Your task to perform on an android device: open app "Truecaller" (install if not already installed), go to login, and select forgot password Image 0: 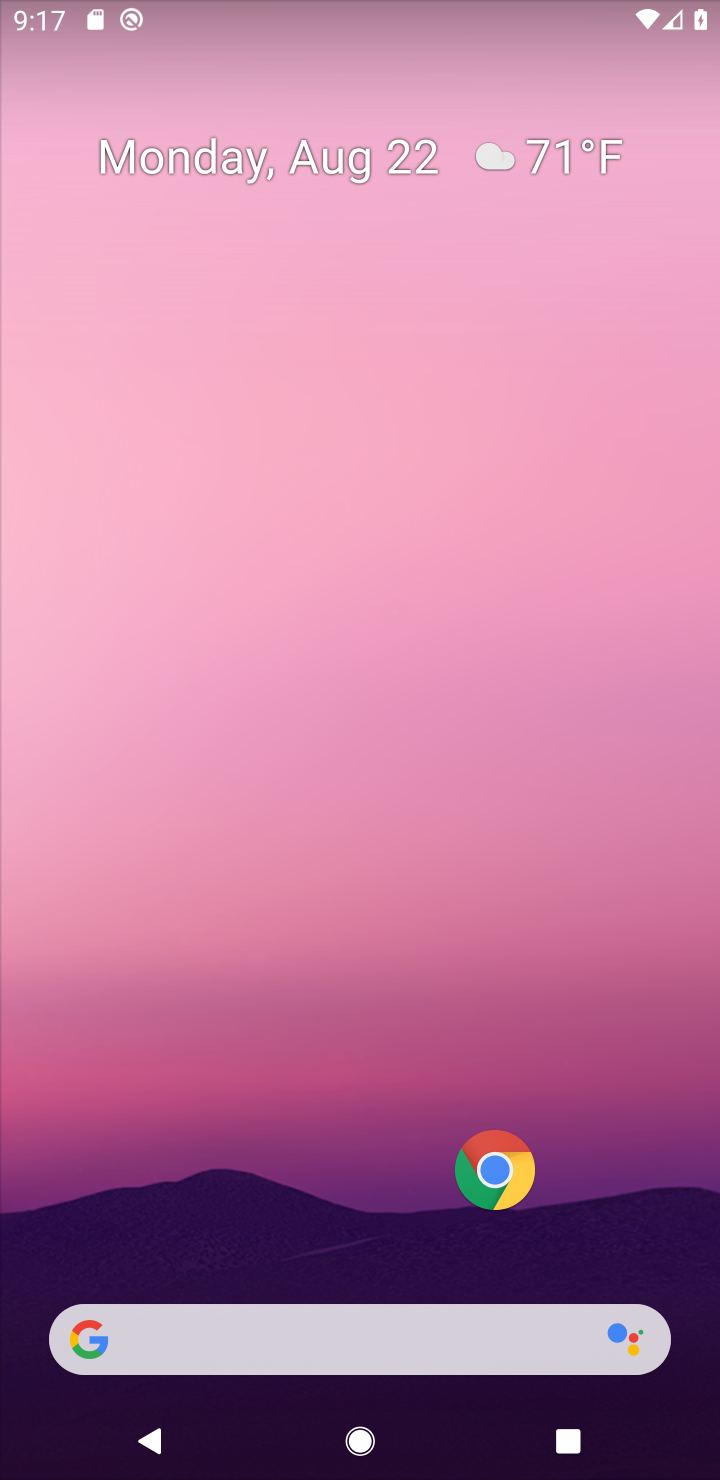
Step 0: drag from (268, 1306) to (339, 98)
Your task to perform on an android device: open app "Truecaller" (install if not already installed), go to login, and select forgot password Image 1: 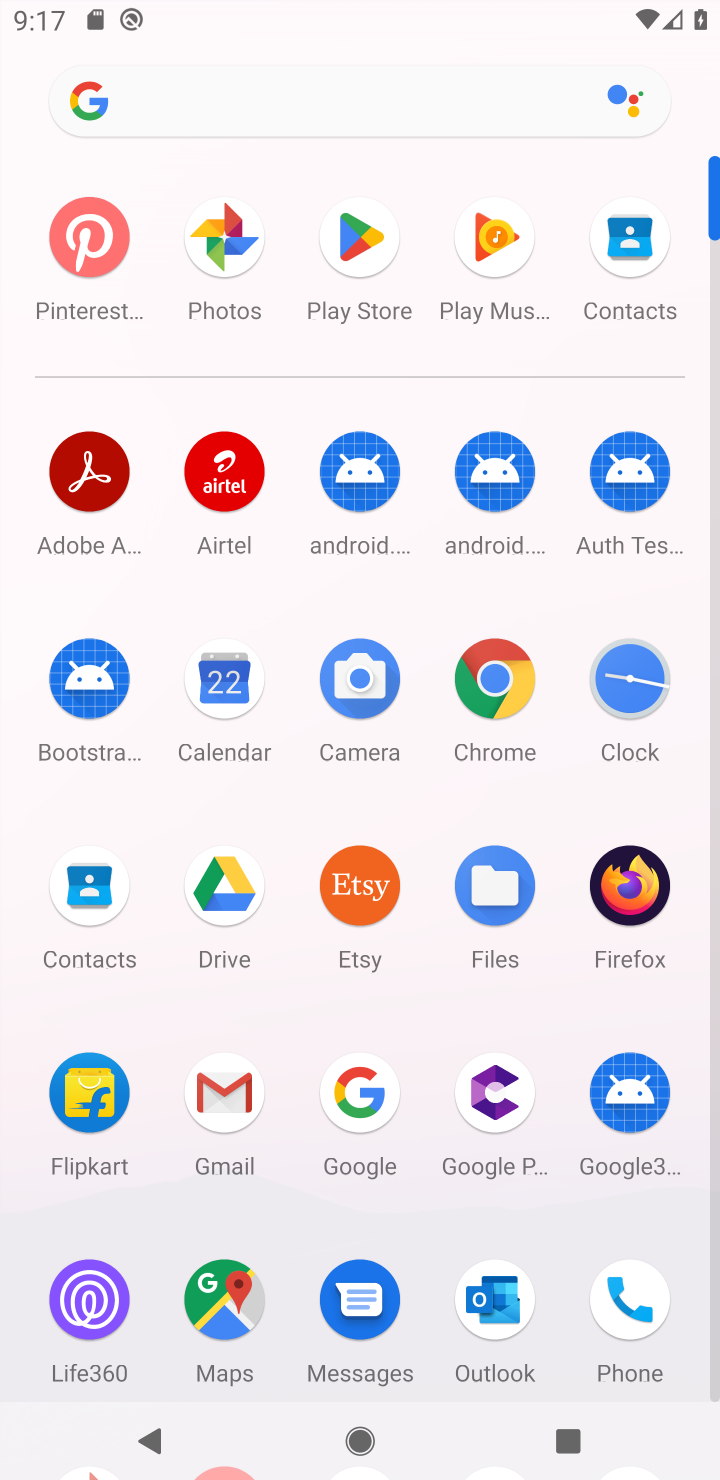
Step 1: click (363, 236)
Your task to perform on an android device: open app "Truecaller" (install if not already installed), go to login, and select forgot password Image 2: 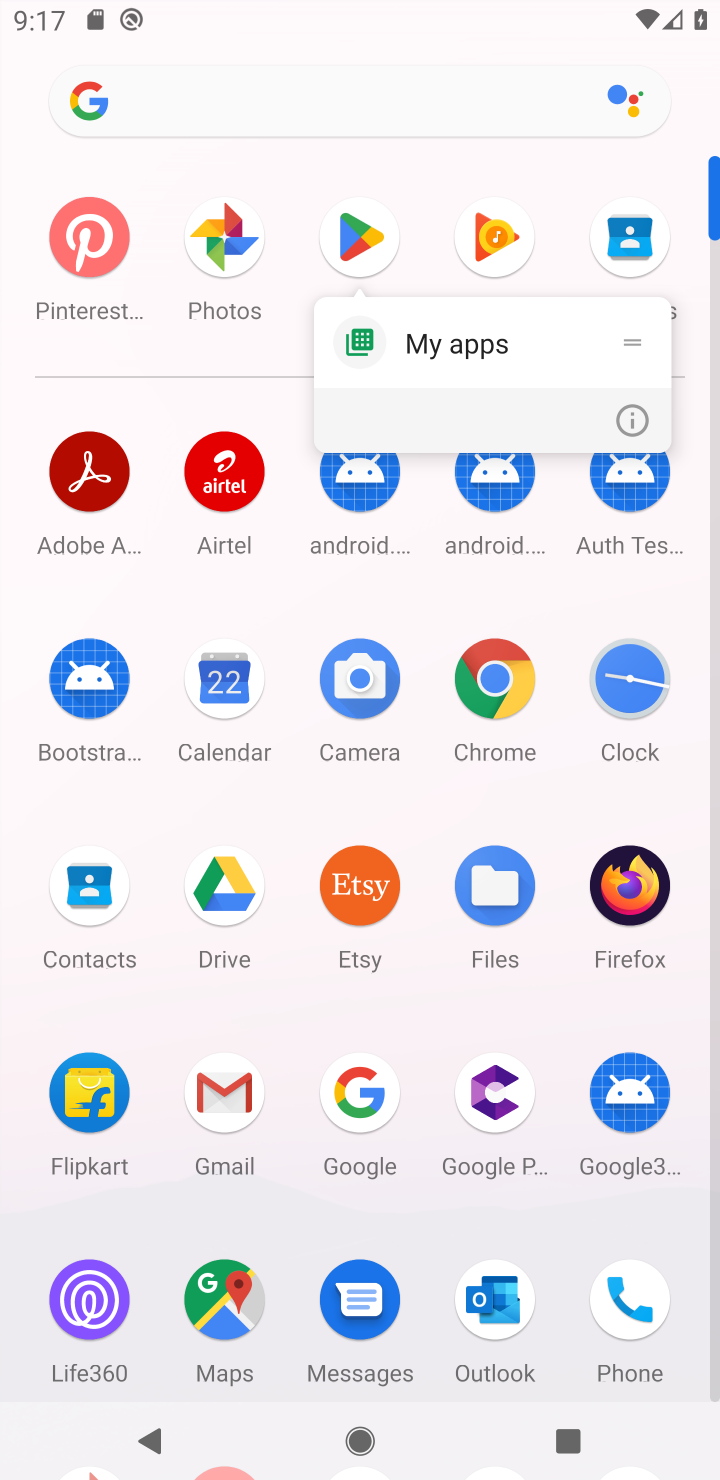
Step 2: click (349, 232)
Your task to perform on an android device: open app "Truecaller" (install if not already installed), go to login, and select forgot password Image 3: 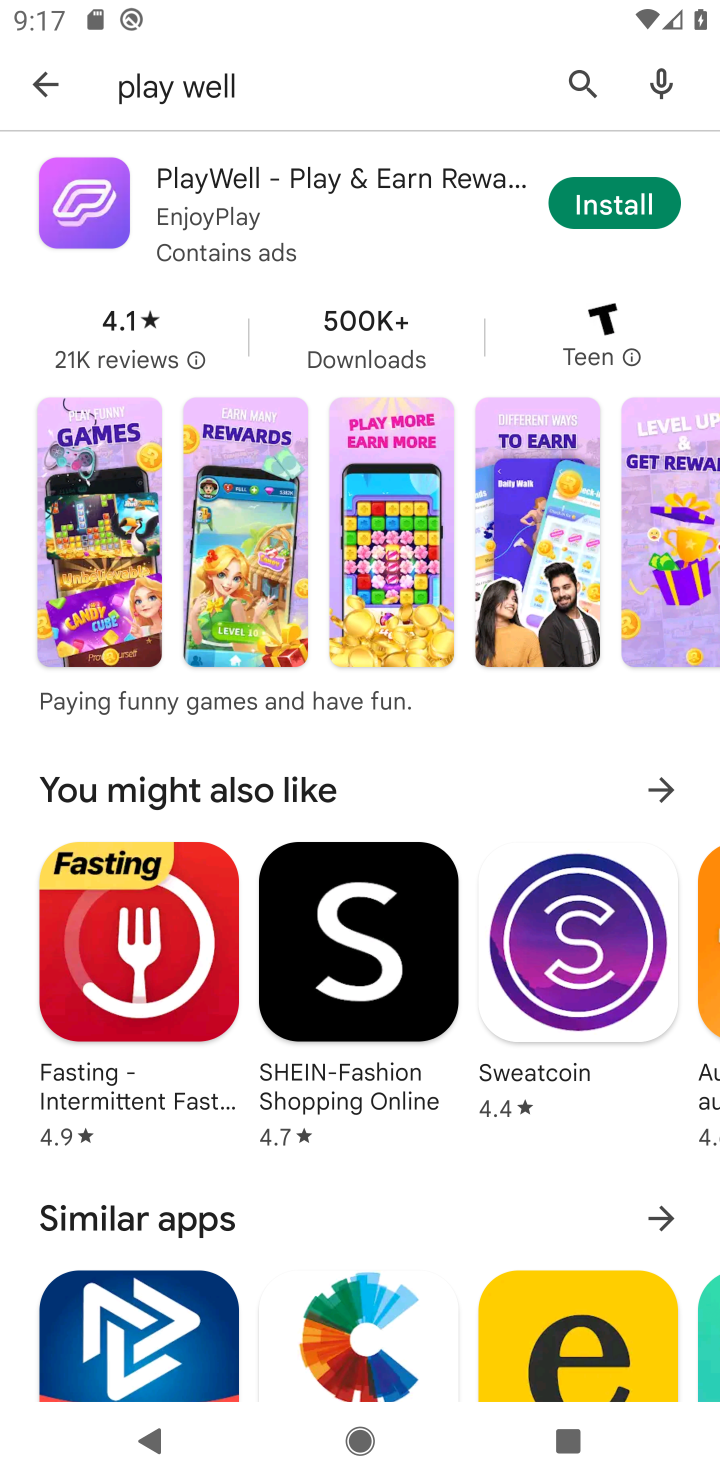
Step 3: click (575, 82)
Your task to perform on an android device: open app "Truecaller" (install if not already installed), go to login, and select forgot password Image 4: 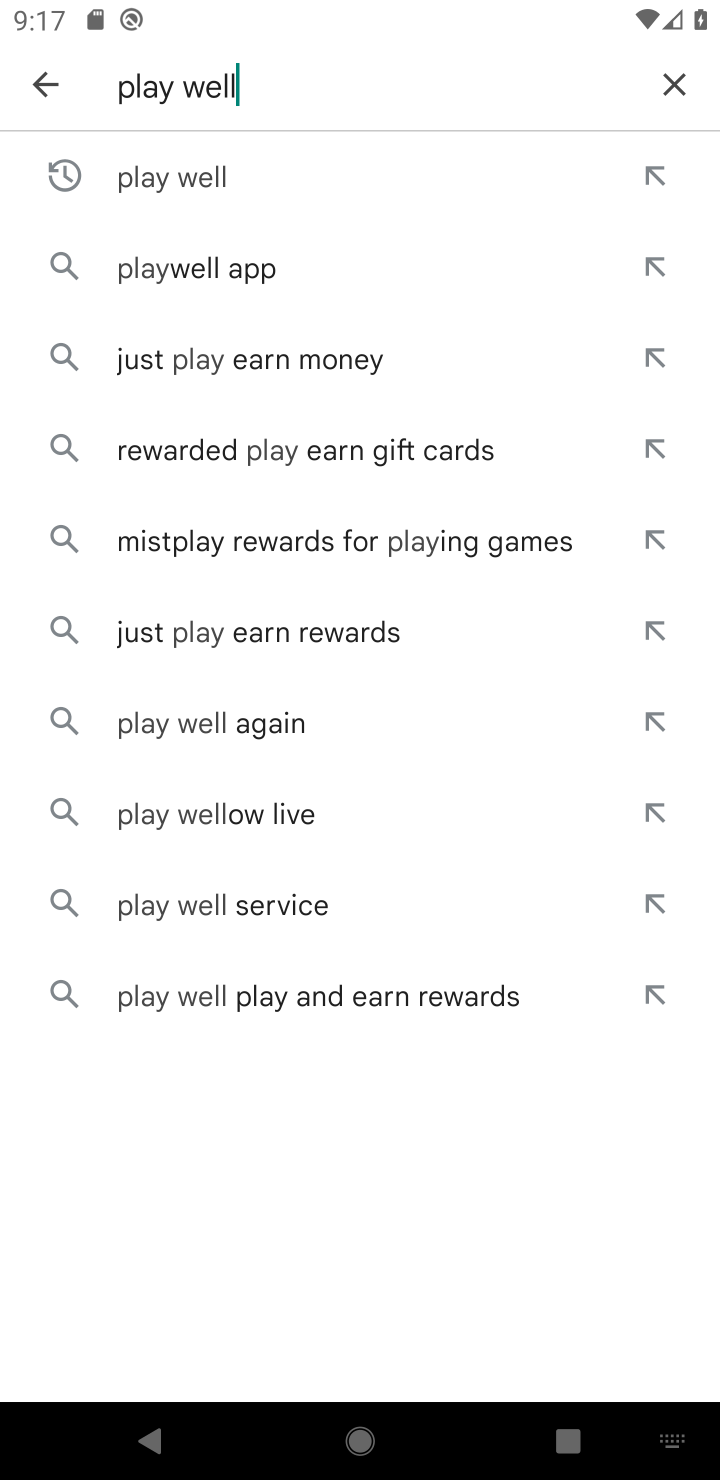
Step 4: click (672, 70)
Your task to perform on an android device: open app "Truecaller" (install if not already installed), go to login, and select forgot password Image 5: 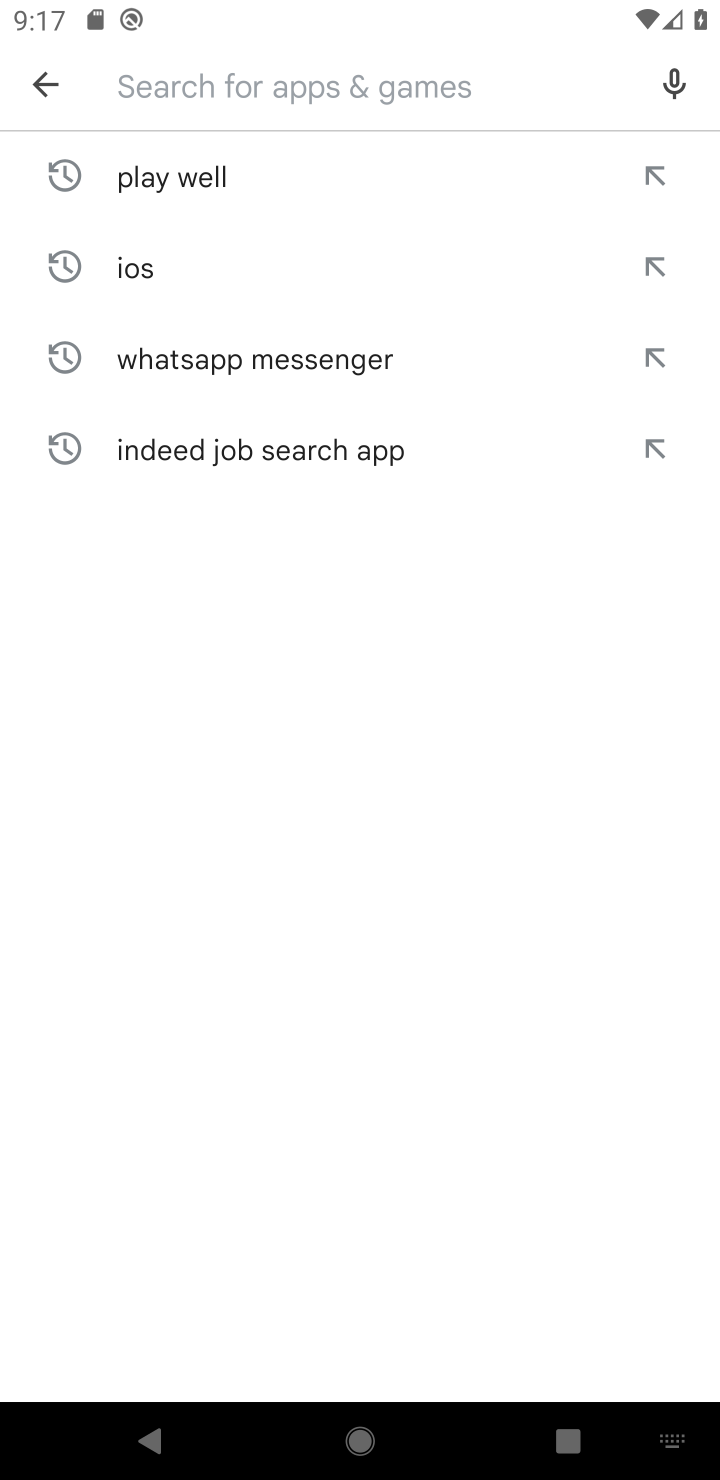
Step 5: click (321, 73)
Your task to perform on an android device: open app "Truecaller" (install if not already installed), go to login, and select forgot password Image 6: 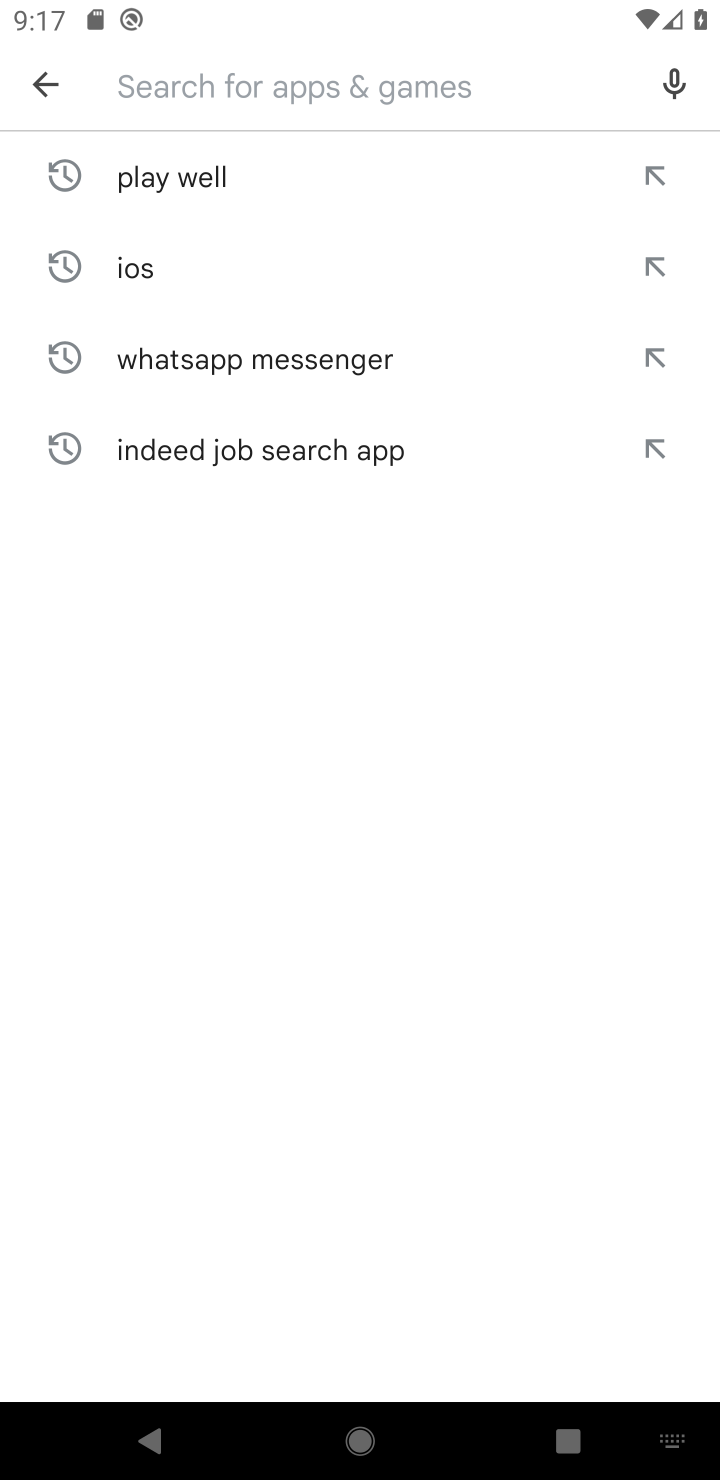
Step 6: type "truecaller"
Your task to perform on an android device: open app "Truecaller" (install if not already installed), go to login, and select forgot password Image 7: 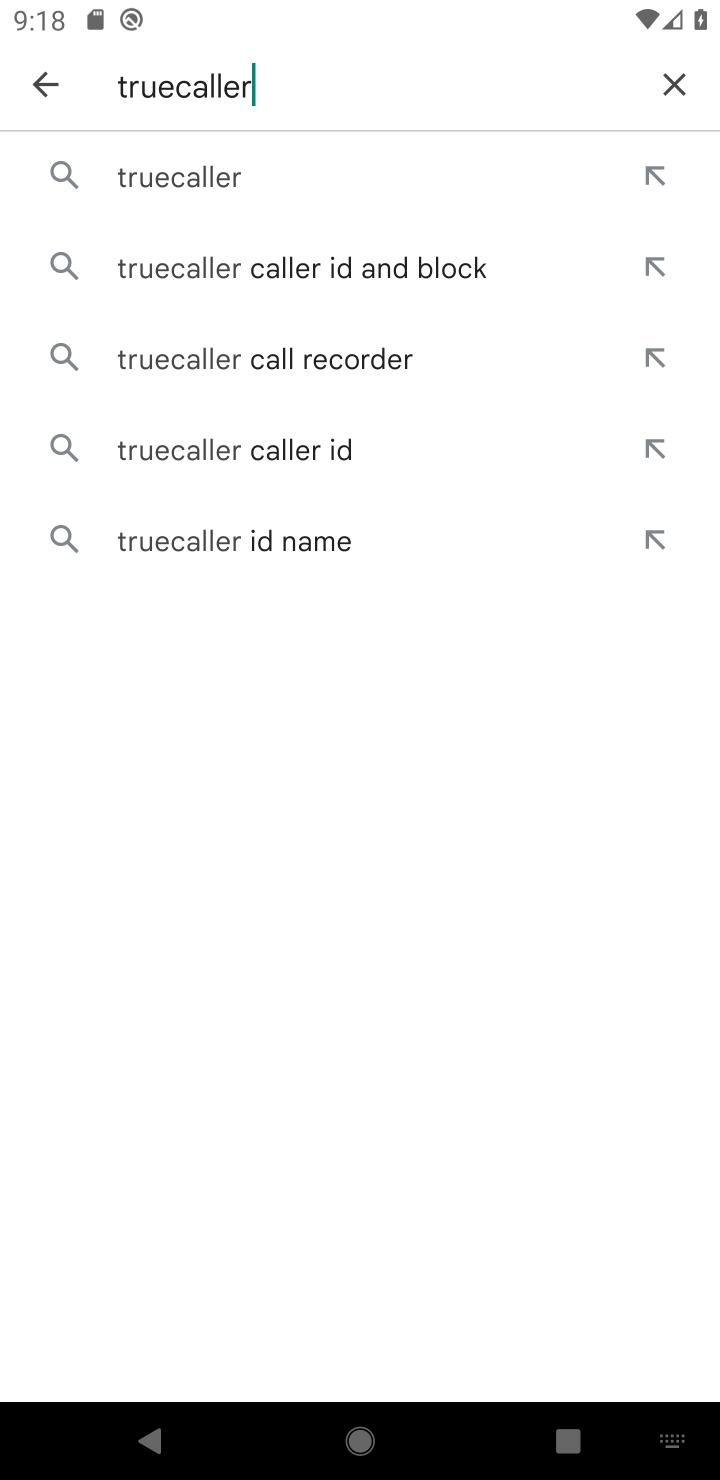
Step 7: click (255, 167)
Your task to perform on an android device: open app "Truecaller" (install if not already installed), go to login, and select forgot password Image 8: 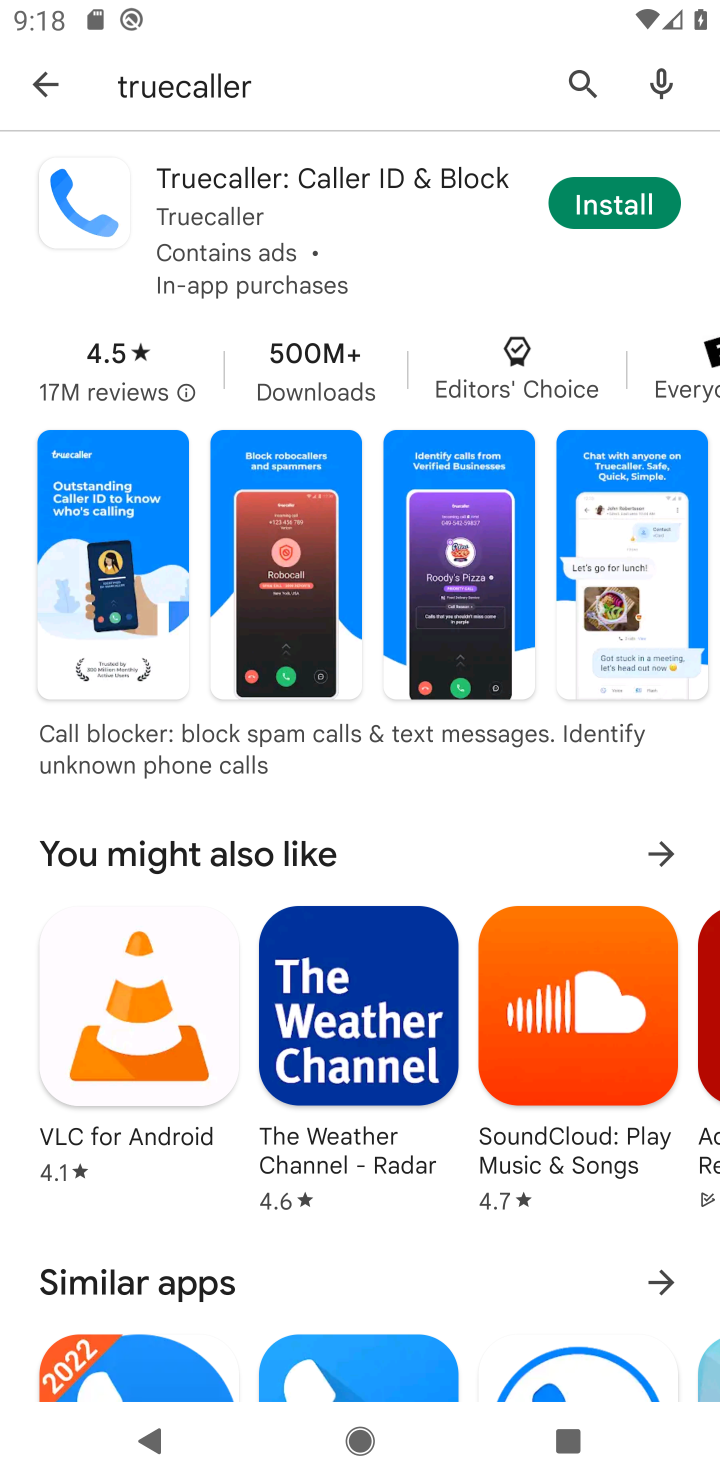
Step 8: click (616, 216)
Your task to perform on an android device: open app "Truecaller" (install if not already installed), go to login, and select forgot password Image 9: 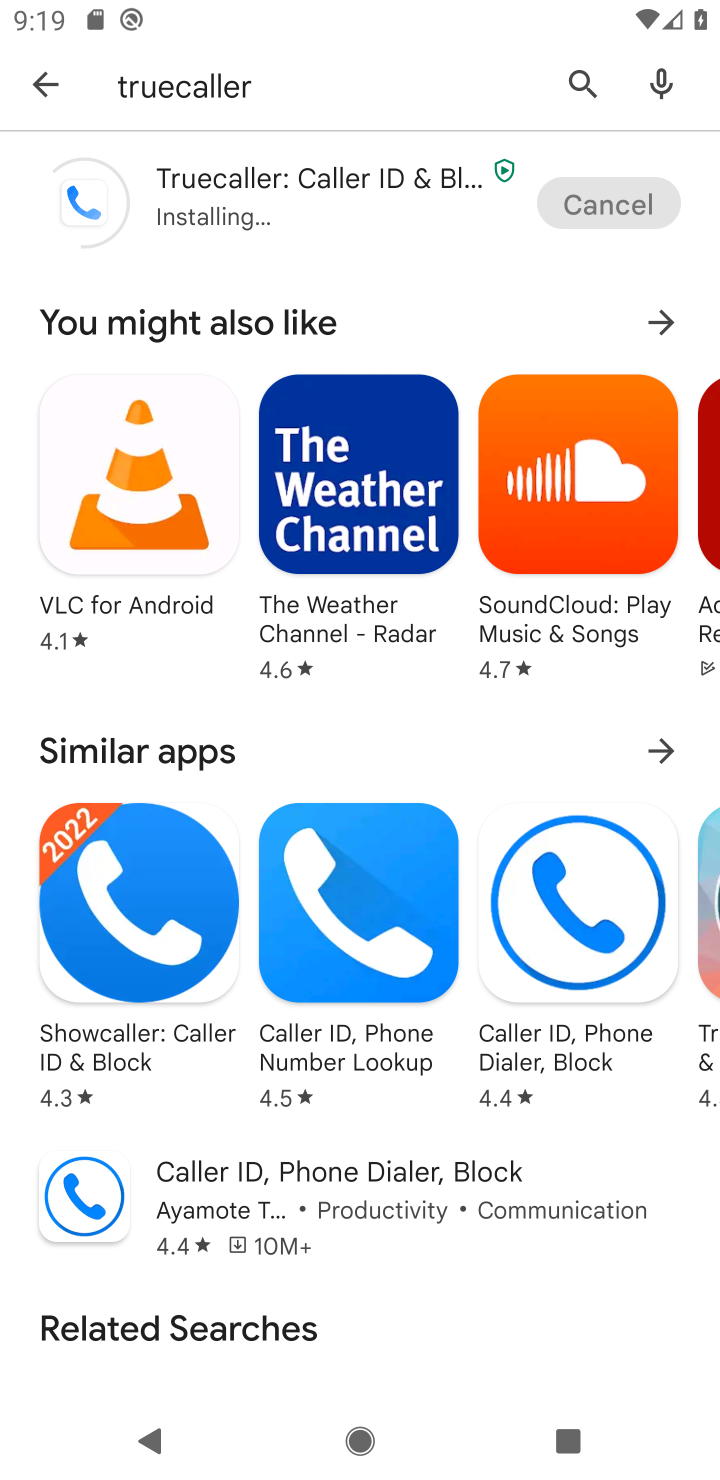
Step 9: press back button
Your task to perform on an android device: open app "Truecaller" (install if not already installed), go to login, and select forgot password Image 10: 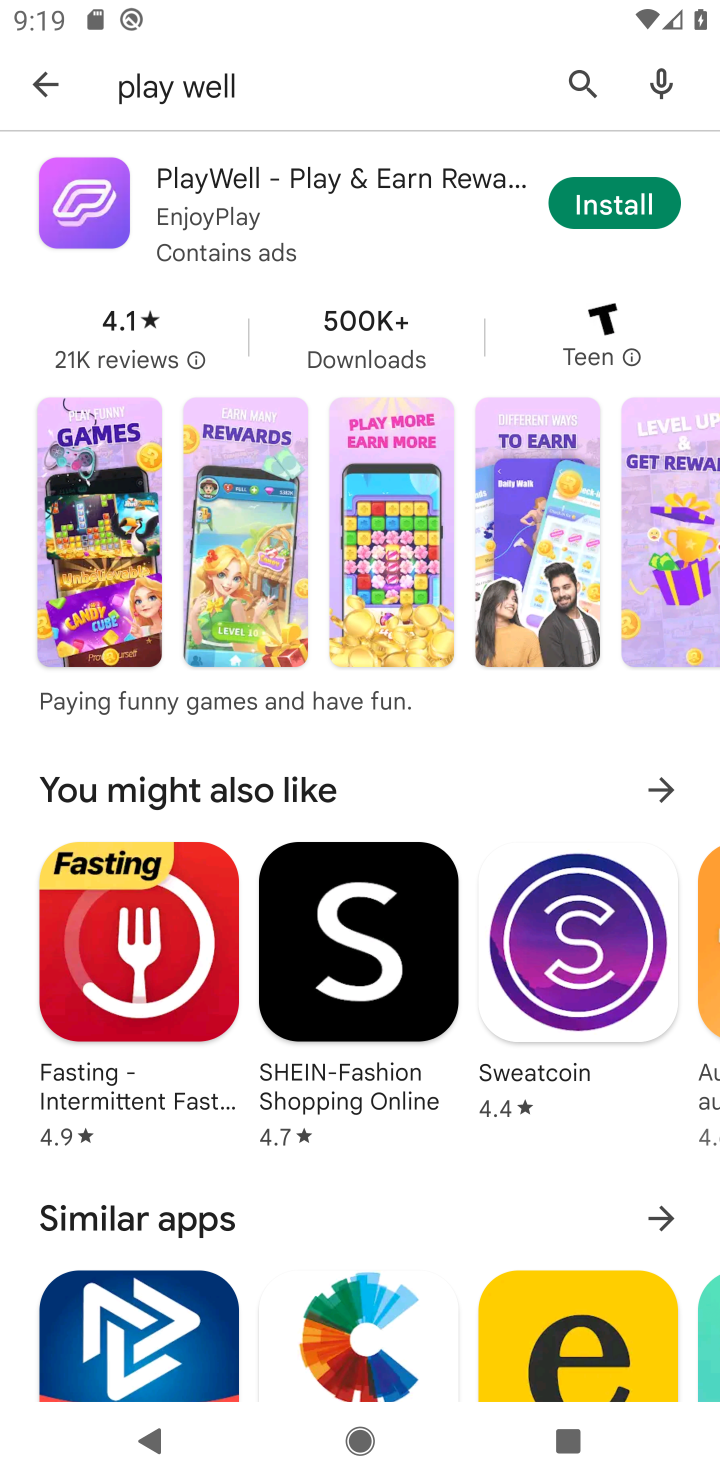
Step 10: click (586, 78)
Your task to perform on an android device: open app "Truecaller" (install if not already installed), go to login, and select forgot password Image 11: 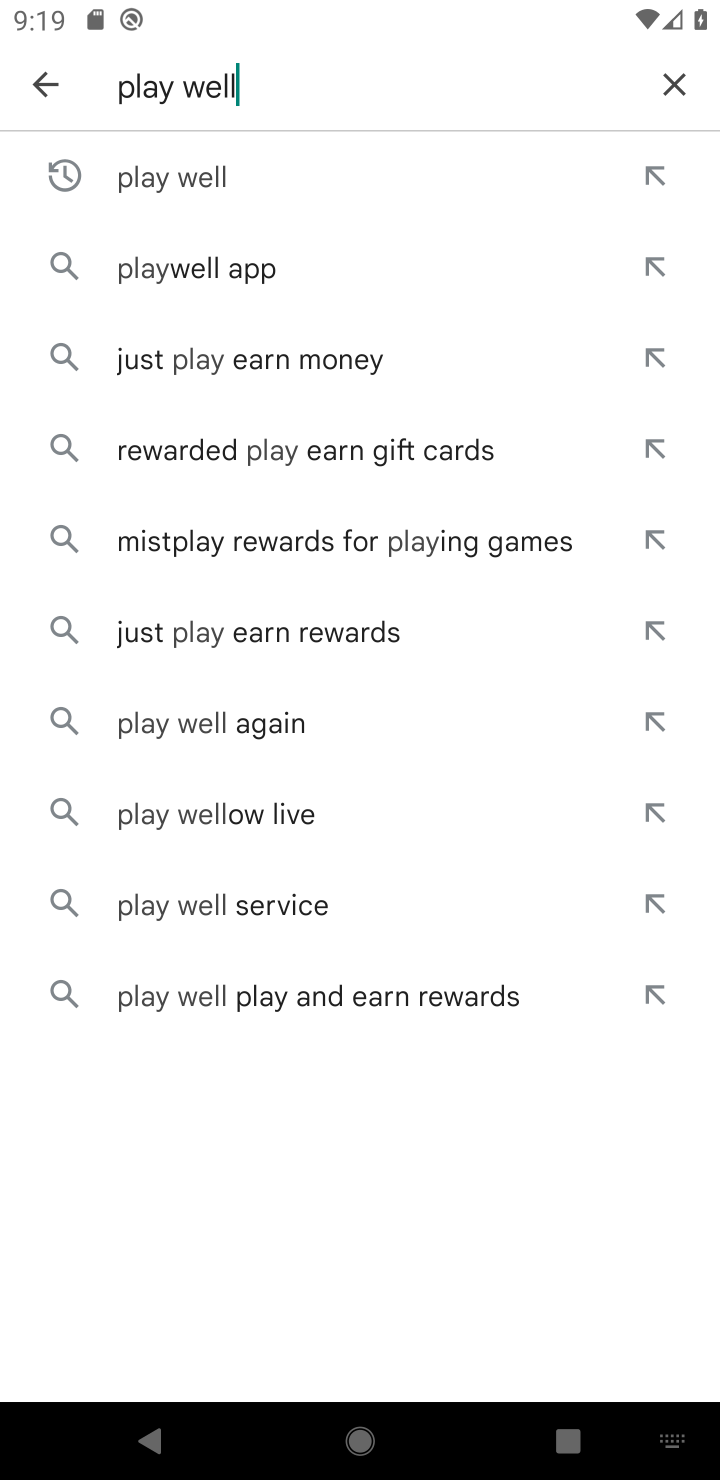
Step 11: click (688, 77)
Your task to perform on an android device: open app "Truecaller" (install if not already installed), go to login, and select forgot password Image 12: 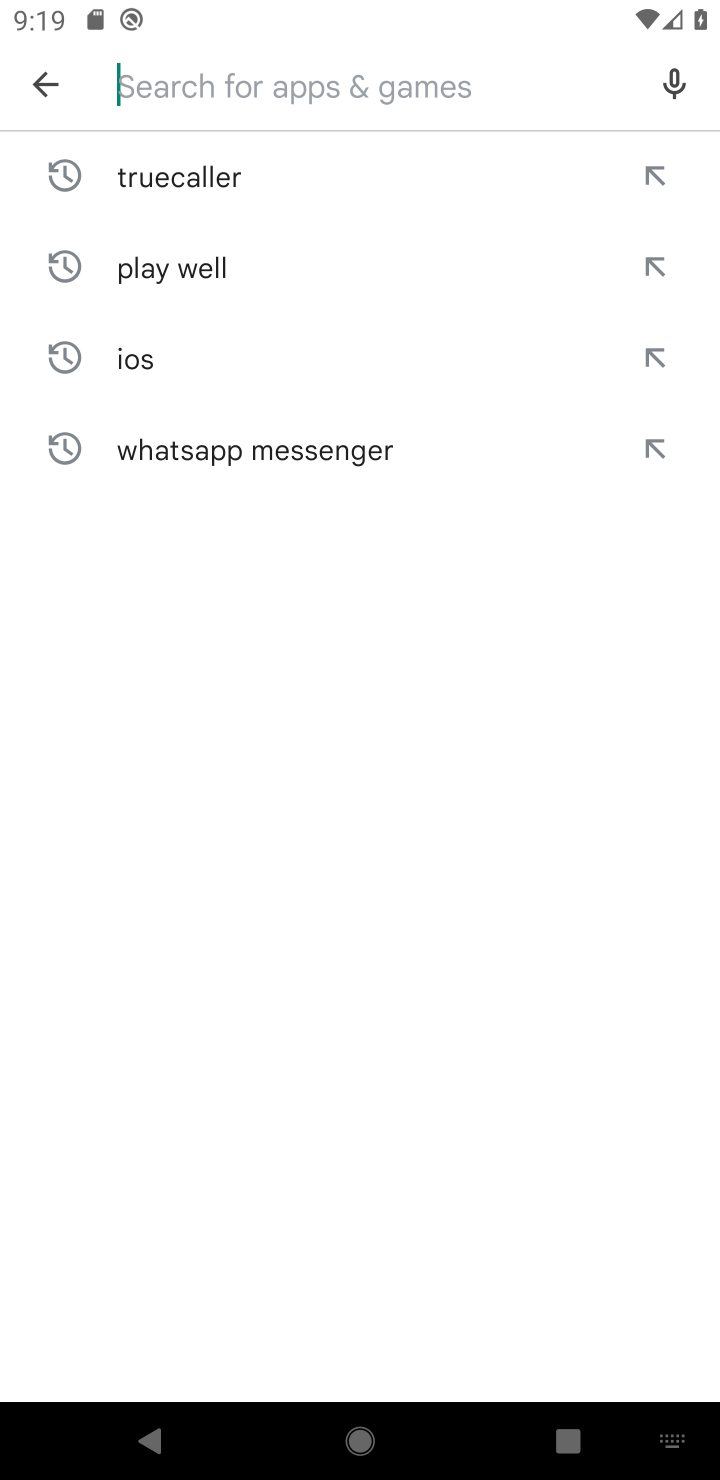
Step 12: click (180, 173)
Your task to perform on an android device: open app "Truecaller" (install if not already installed), go to login, and select forgot password Image 13: 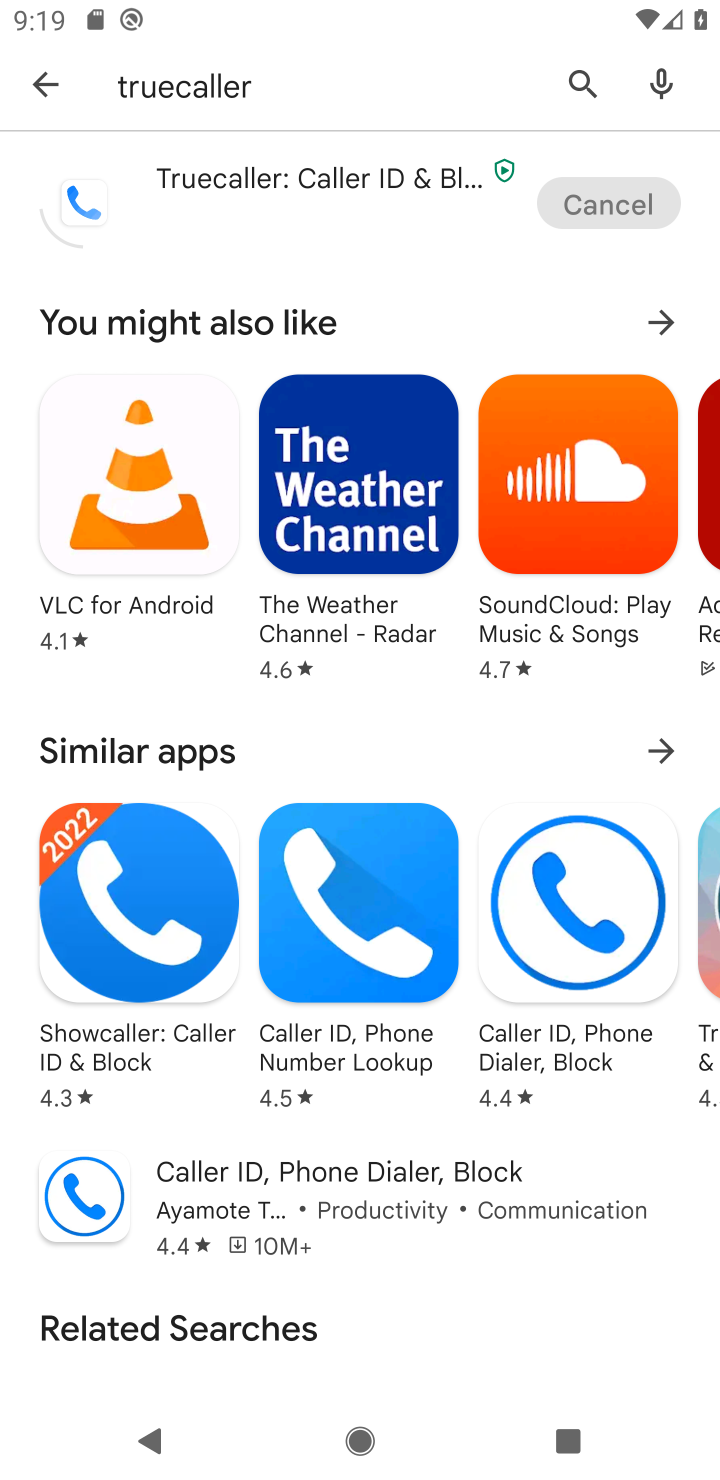
Step 13: press back button
Your task to perform on an android device: open app "Truecaller" (install if not already installed), go to login, and select forgot password Image 14: 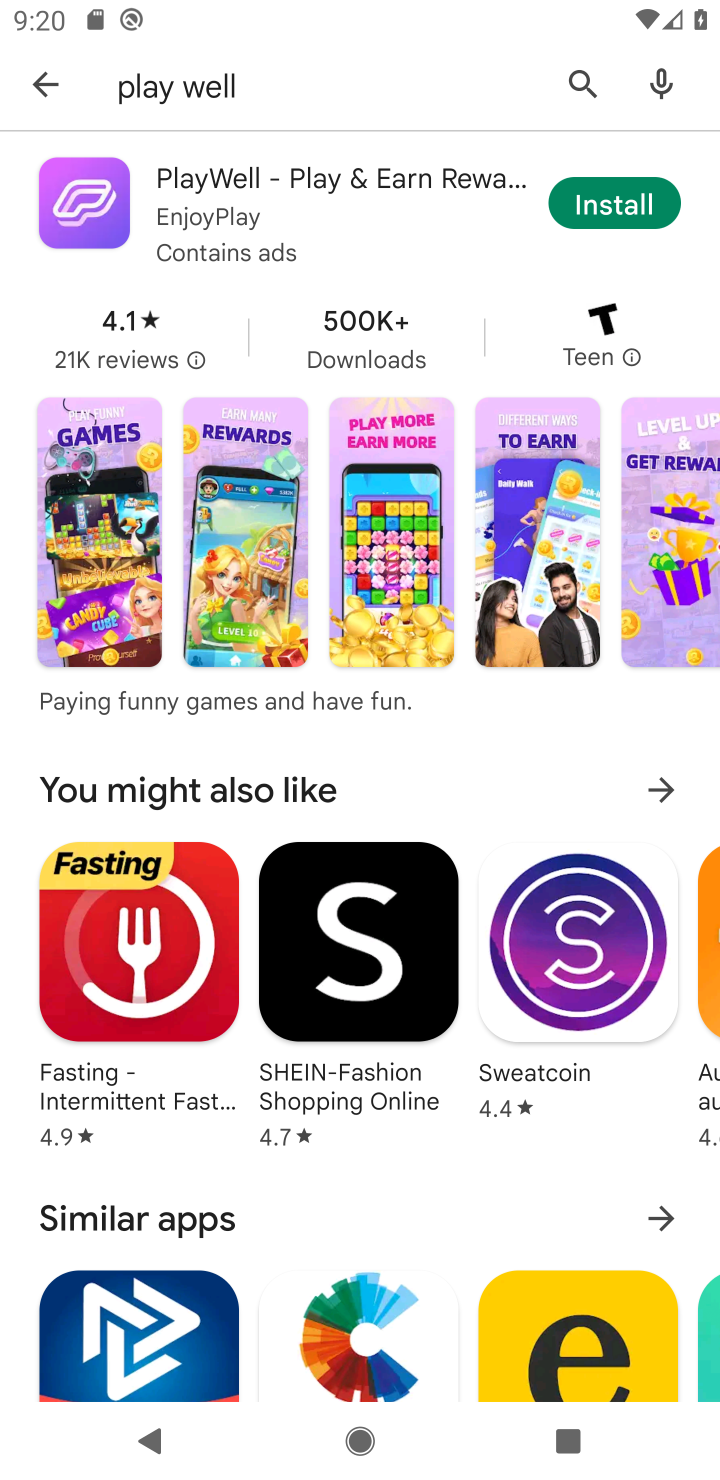
Step 14: click (579, 67)
Your task to perform on an android device: open app "Truecaller" (install if not already installed), go to login, and select forgot password Image 15: 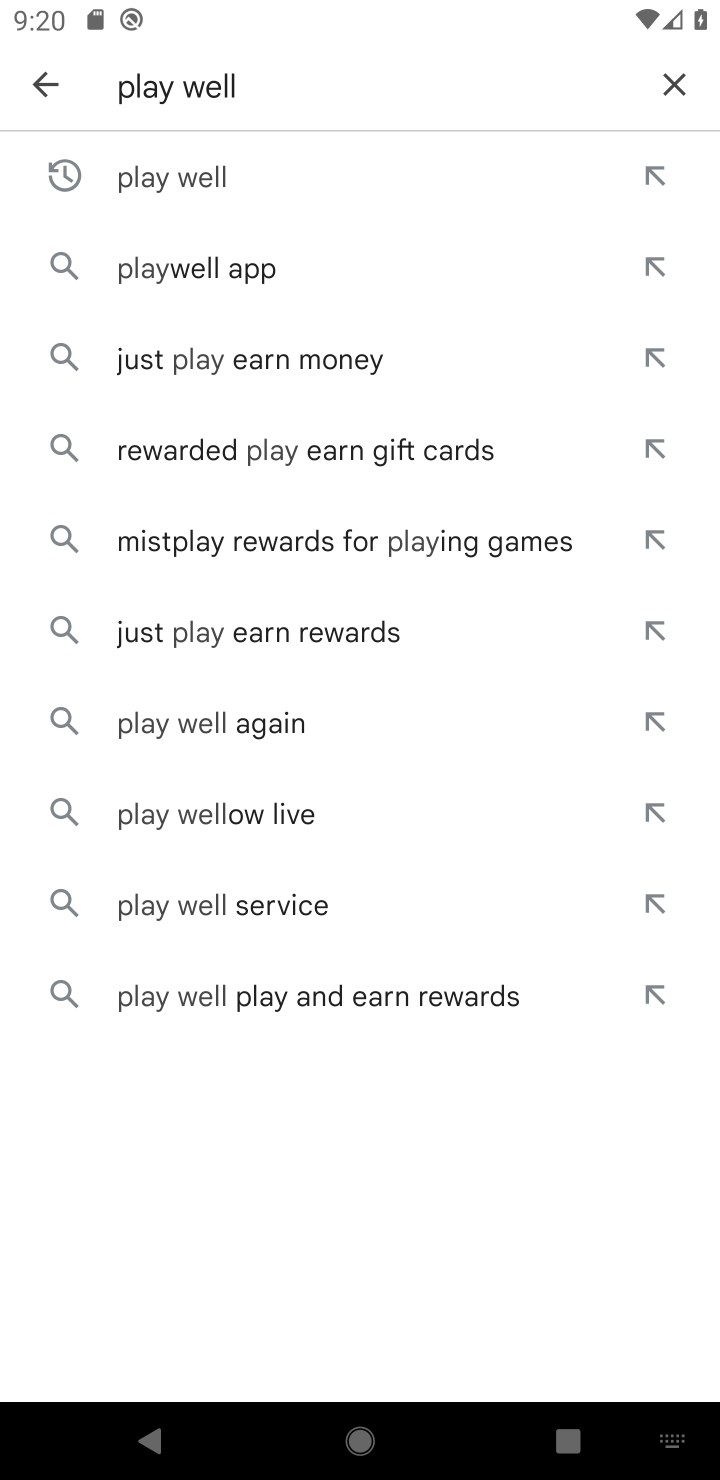
Step 15: click (690, 76)
Your task to perform on an android device: open app "Truecaller" (install if not already installed), go to login, and select forgot password Image 16: 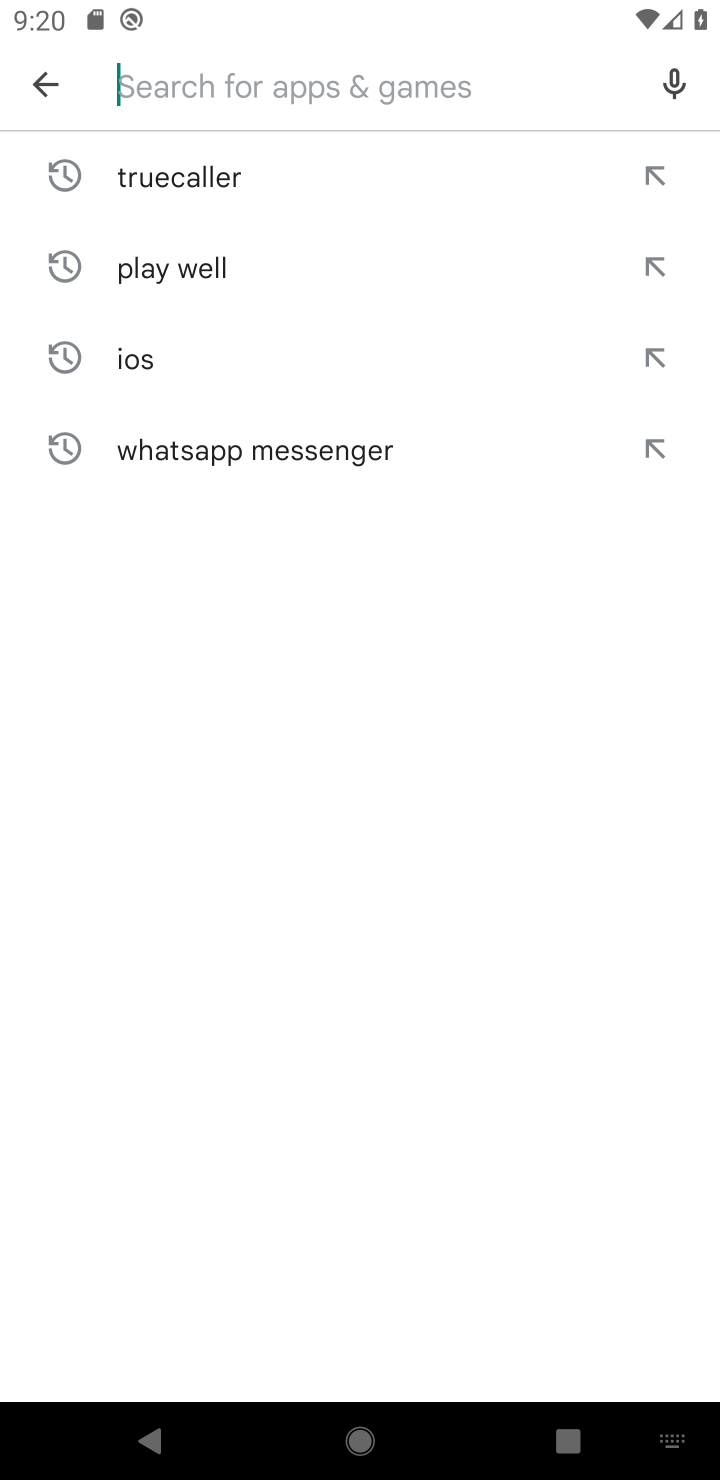
Step 16: click (238, 175)
Your task to perform on an android device: open app "Truecaller" (install if not already installed), go to login, and select forgot password Image 17: 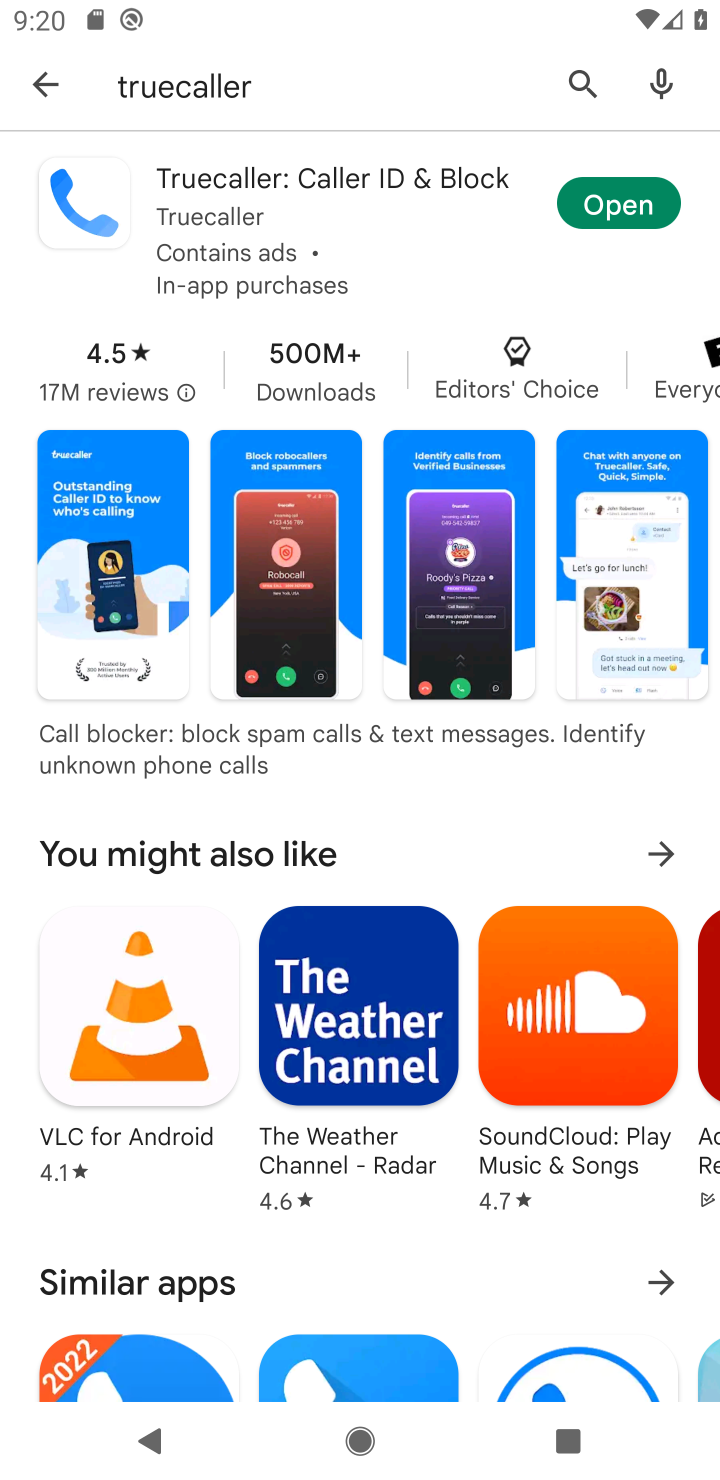
Step 17: click (611, 200)
Your task to perform on an android device: open app "Truecaller" (install if not already installed), go to login, and select forgot password Image 18: 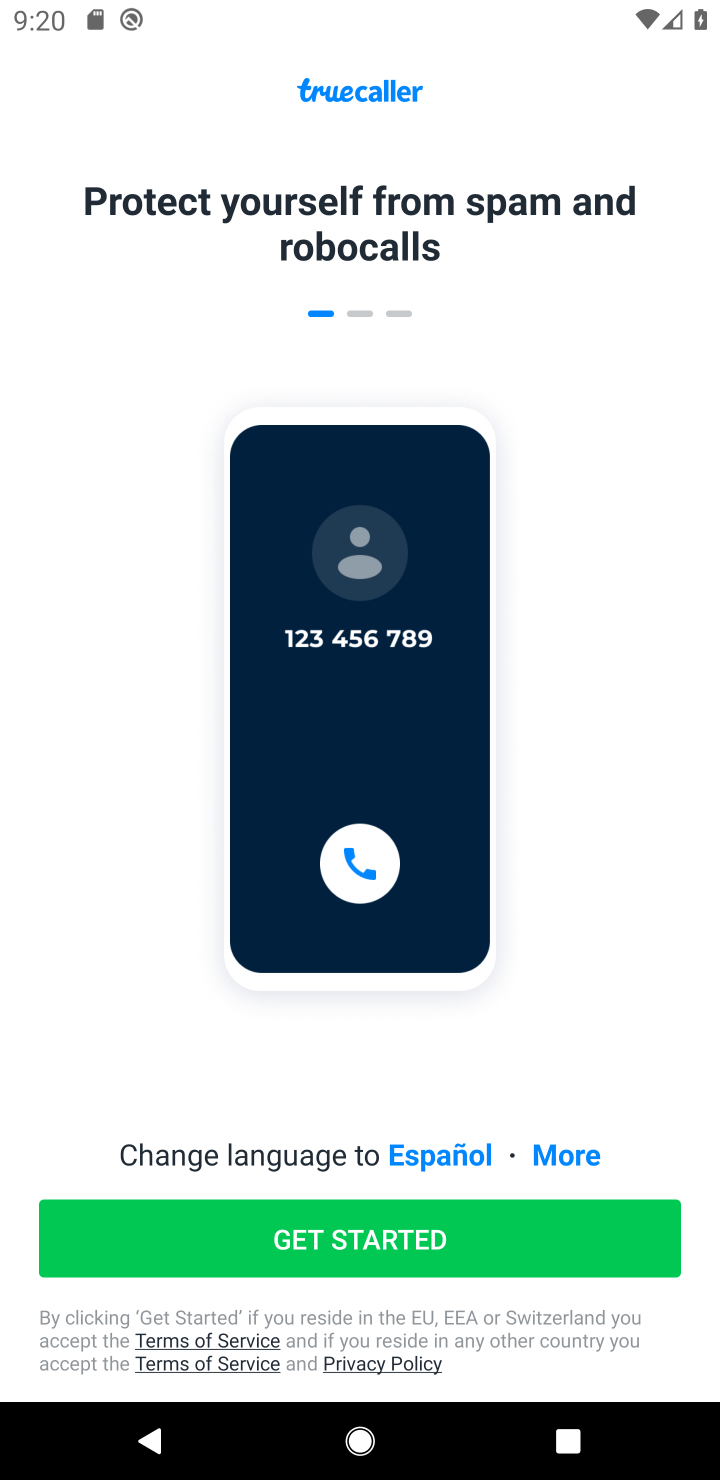
Step 18: click (314, 1235)
Your task to perform on an android device: open app "Truecaller" (install if not already installed), go to login, and select forgot password Image 19: 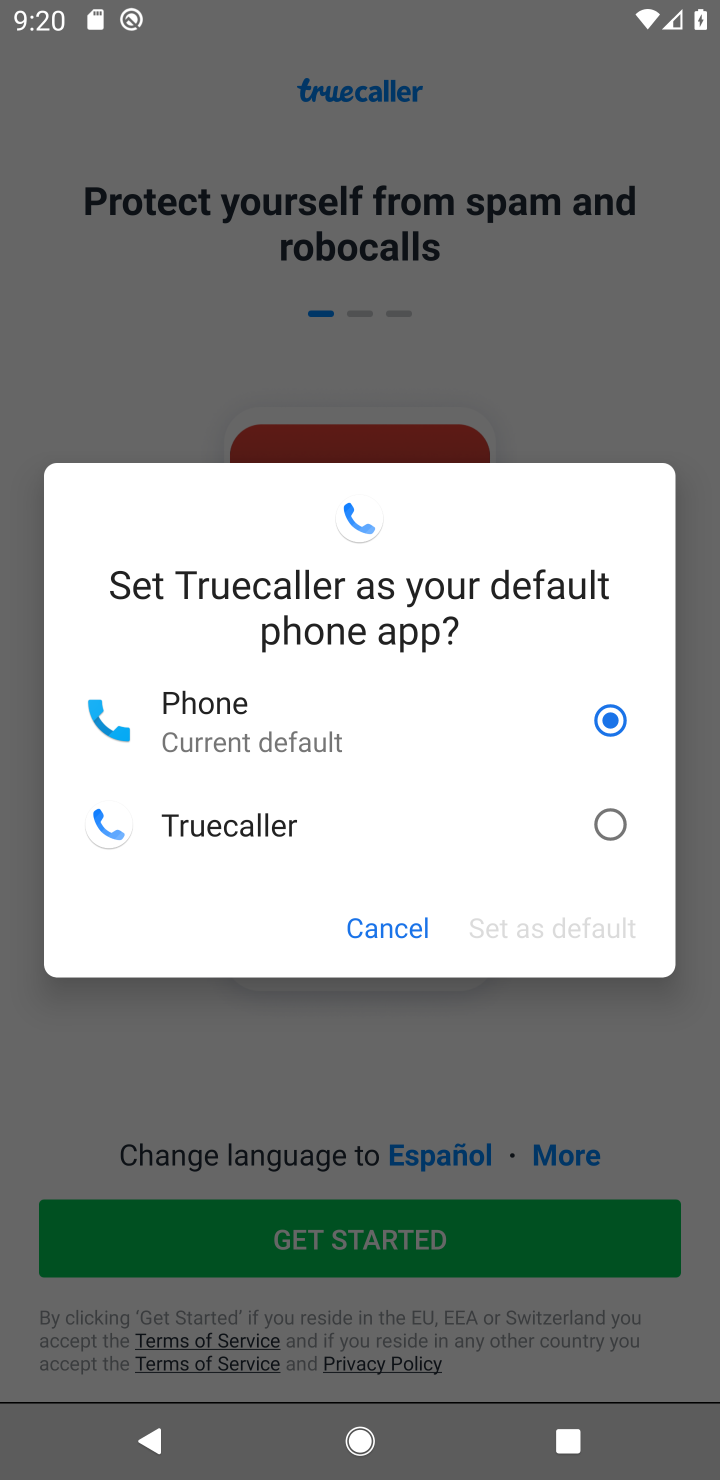
Step 19: click (583, 831)
Your task to perform on an android device: open app "Truecaller" (install if not already installed), go to login, and select forgot password Image 20: 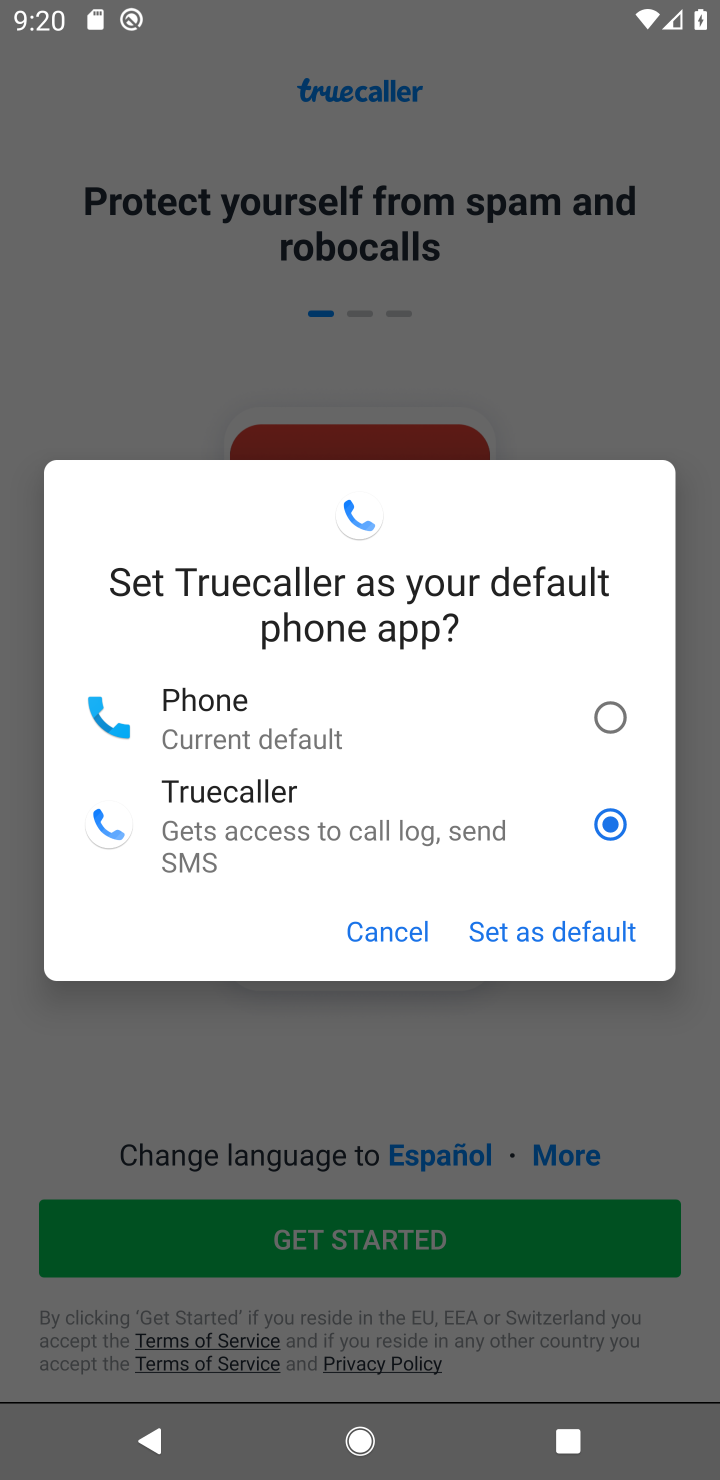
Step 20: click (581, 922)
Your task to perform on an android device: open app "Truecaller" (install if not already installed), go to login, and select forgot password Image 21: 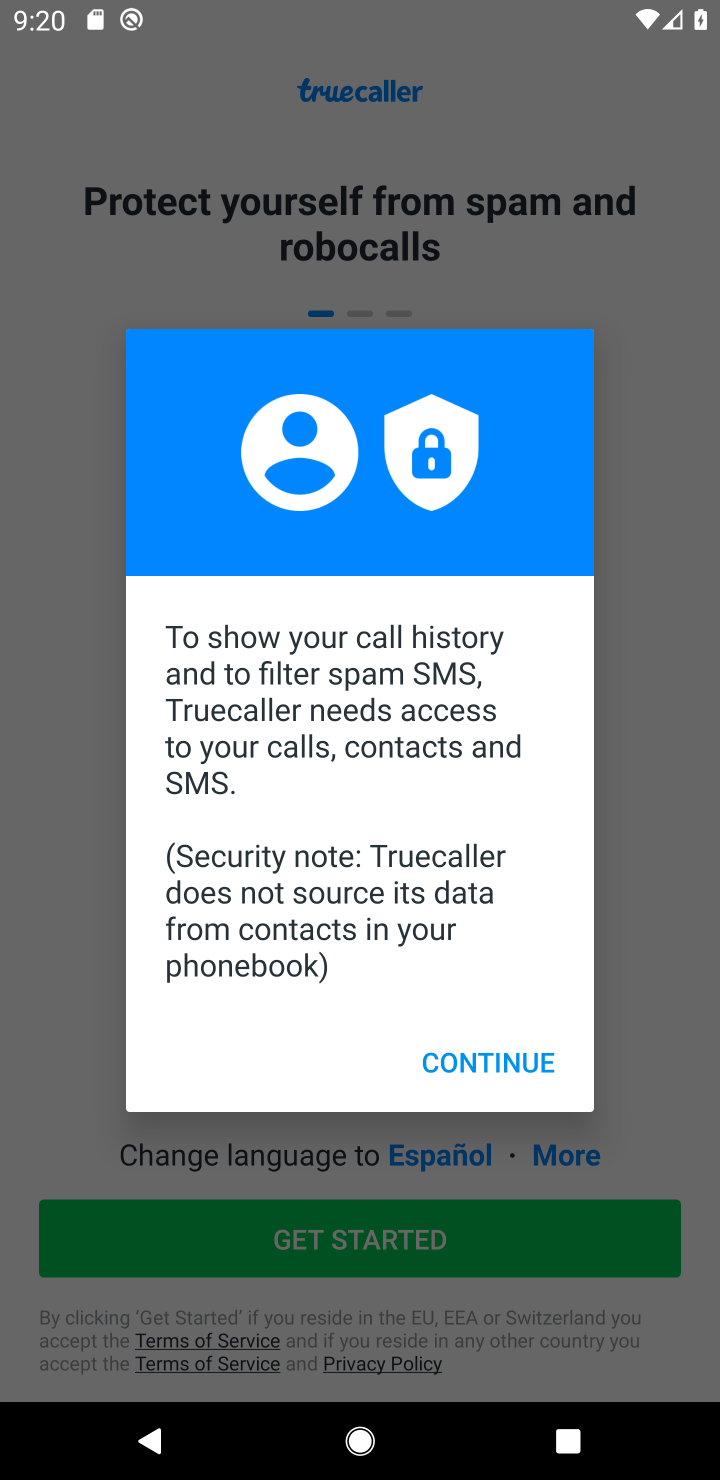
Step 21: click (489, 1052)
Your task to perform on an android device: open app "Truecaller" (install if not already installed), go to login, and select forgot password Image 22: 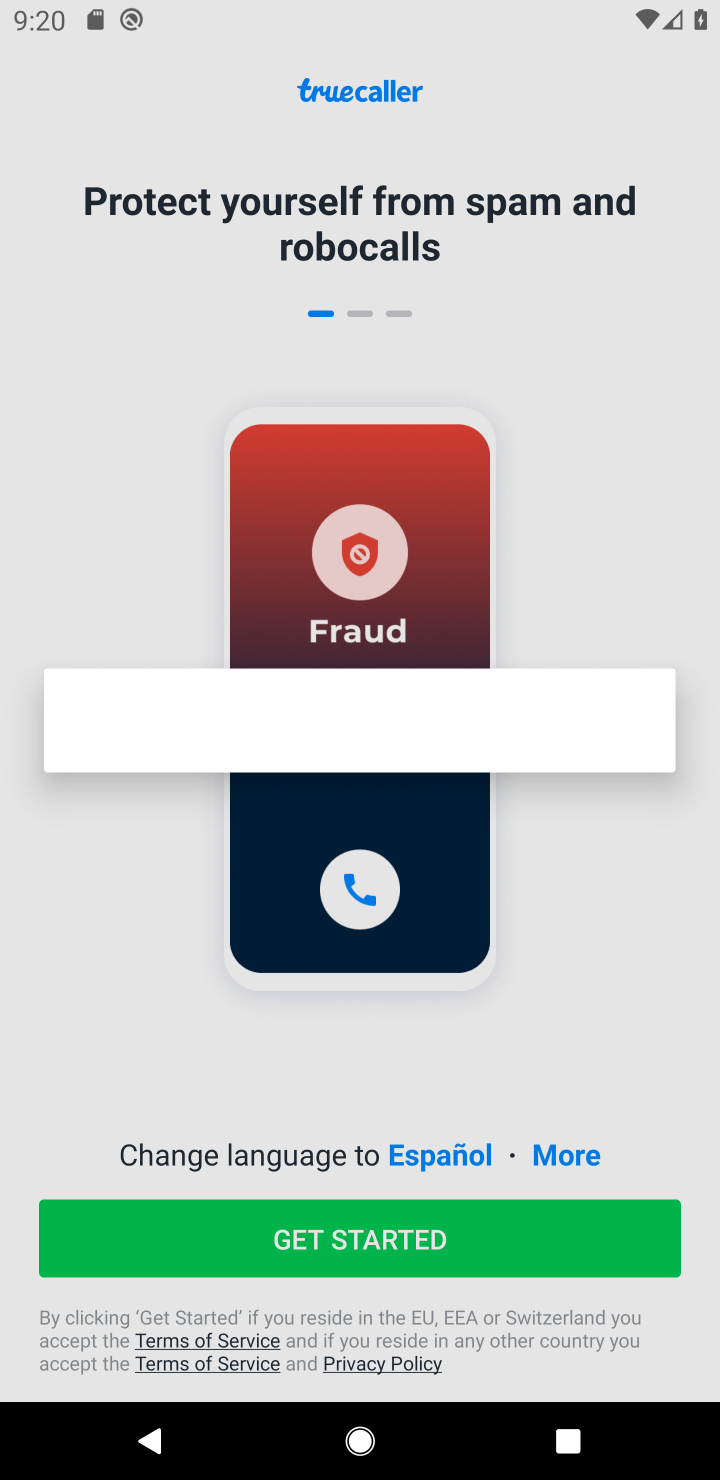
Step 22: click (330, 1228)
Your task to perform on an android device: open app "Truecaller" (install if not already installed), go to login, and select forgot password Image 23: 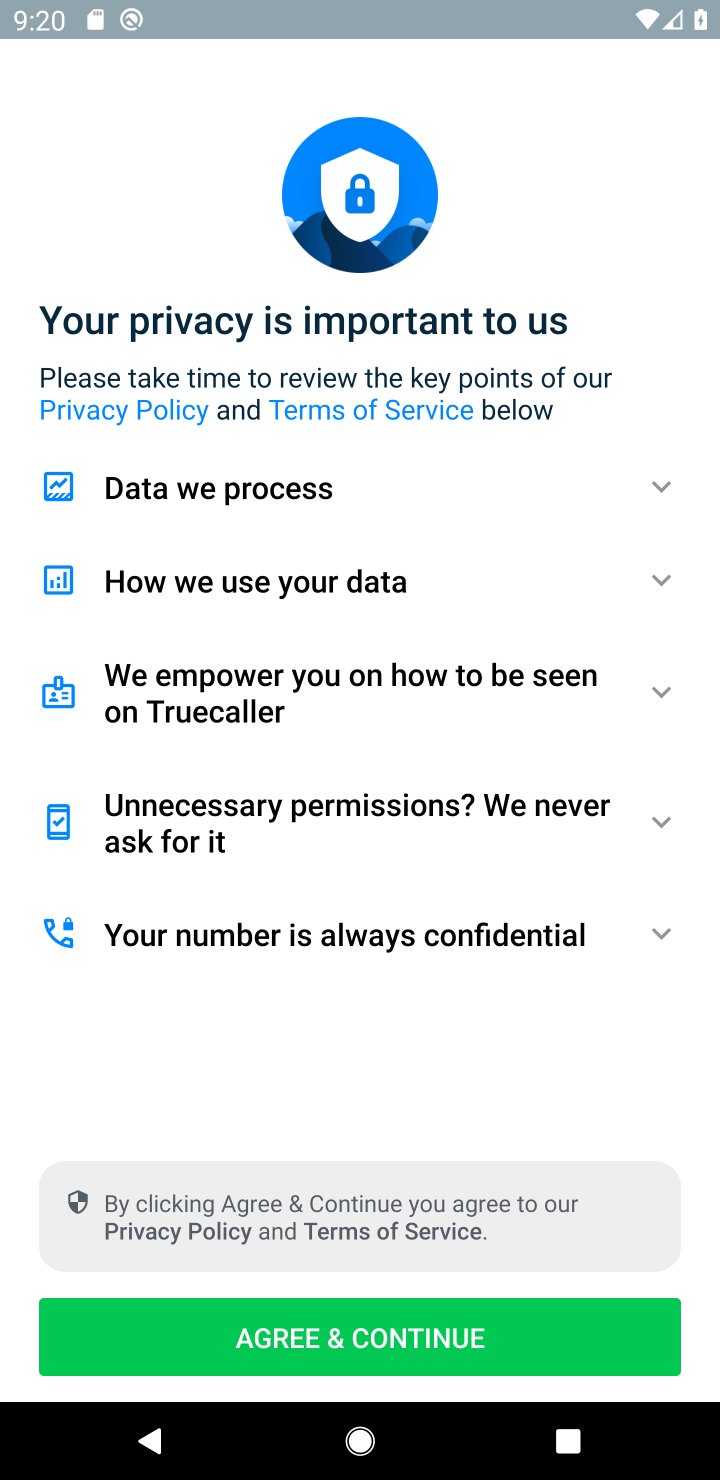
Step 23: click (349, 1329)
Your task to perform on an android device: open app "Truecaller" (install if not already installed), go to login, and select forgot password Image 24: 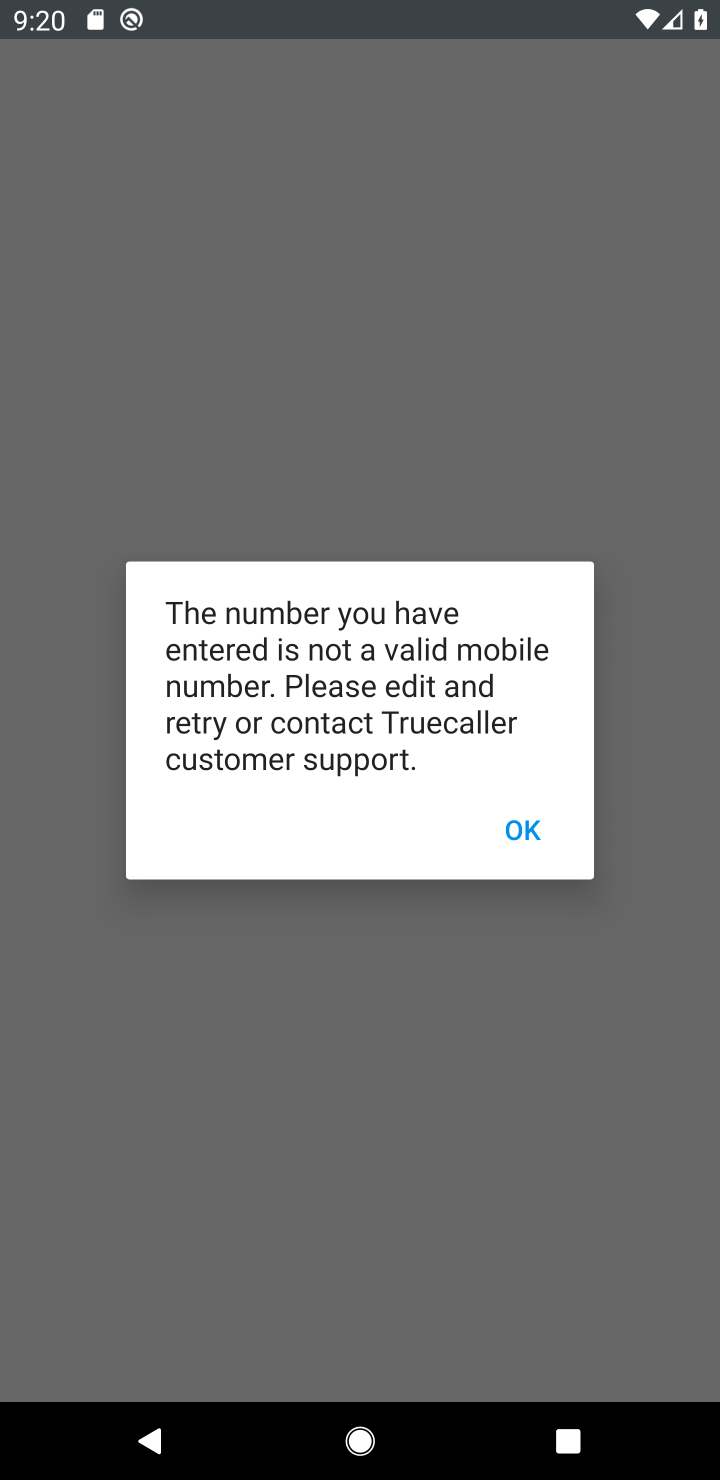
Step 24: click (530, 843)
Your task to perform on an android device: open app "Truecaller" (install if not already installed), go to login, and select forgot password Image 25: 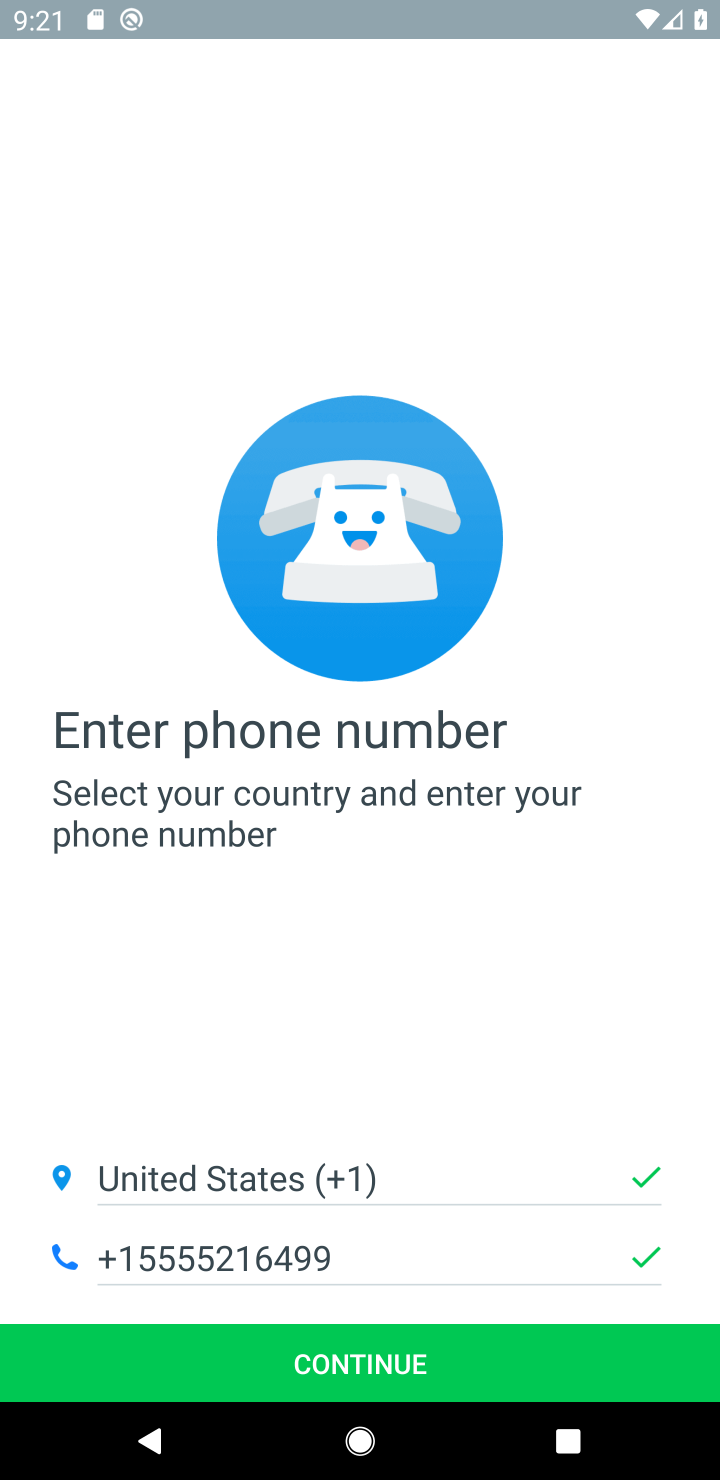
Step 25: task complete